Your task to perform on an android device: Open Amazon Image 0: 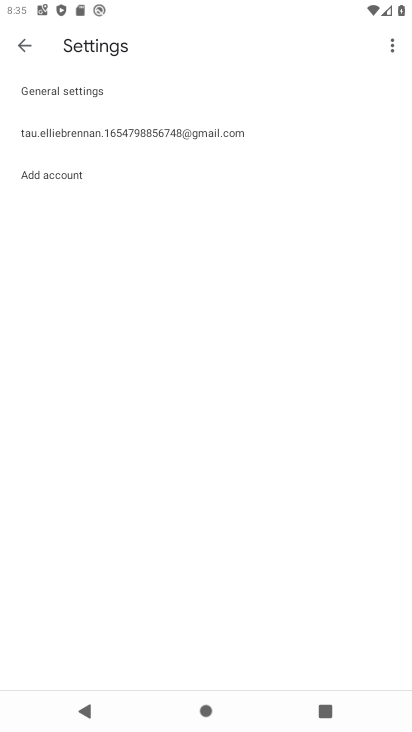
Step 0: press home button
Your task to perform on an android device: Open Amazon Image 1: 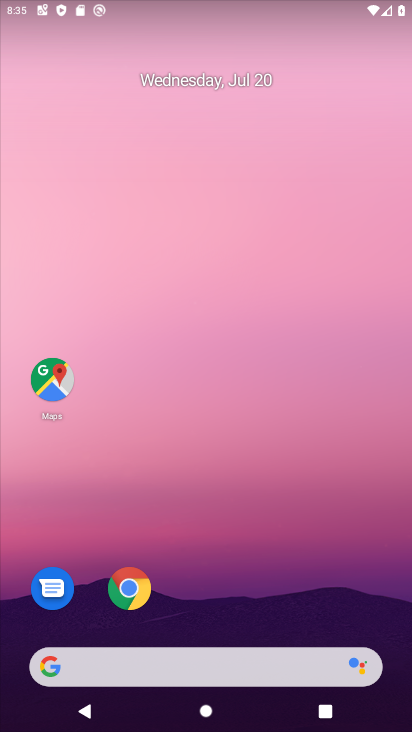
Step 1: click (133, 584)
Your task to perform on an android device: Open Amazon Image 2: 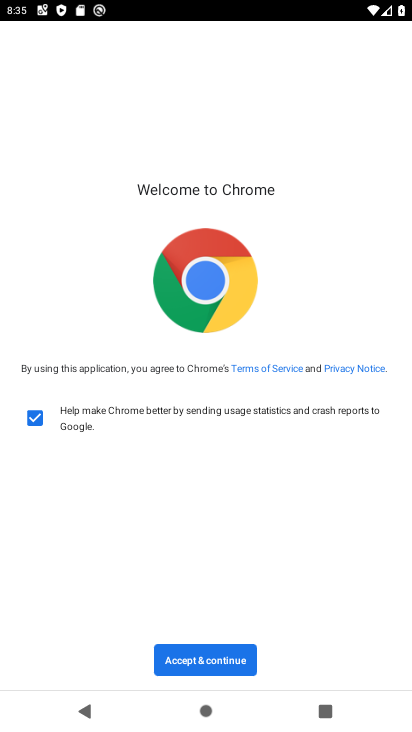
Step 2: click (165, 667)
Your task to perform on an android device: Open Amazon Image 3: 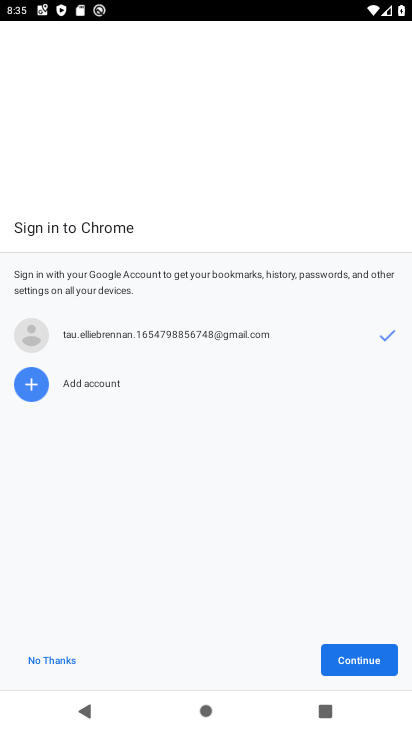
Step 3: click (369, 666)
Your task to perform on an android device: Open Amazon Image 4: 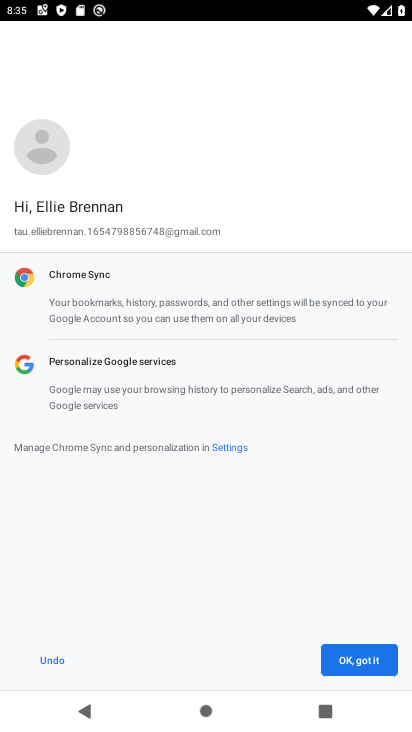
Step 4: click (369, 666)
Your task to perform on an android device: Open Amazon Image 5: 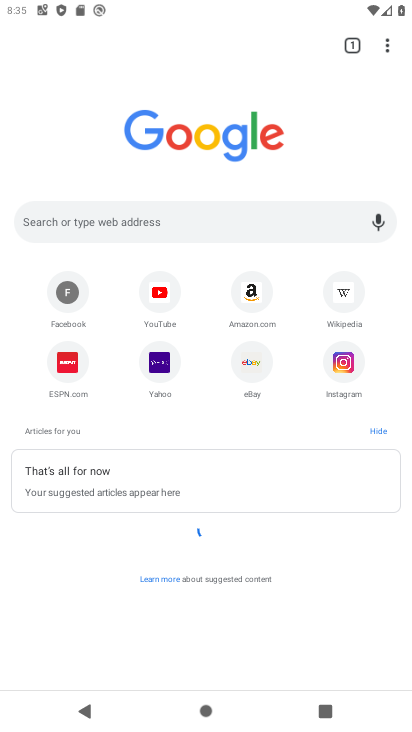
Step 5: click (243, 310)
Your task to perform on an android device: Open Amazon Image 6: 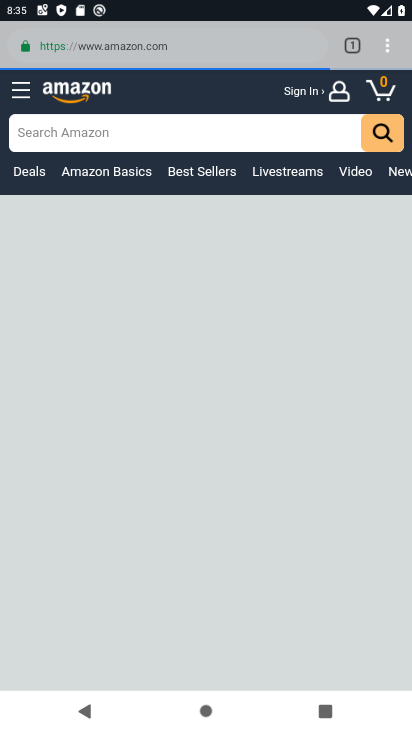
Step 6: task complete